Your task to perform on an android device: Go to battery settings Image 0: 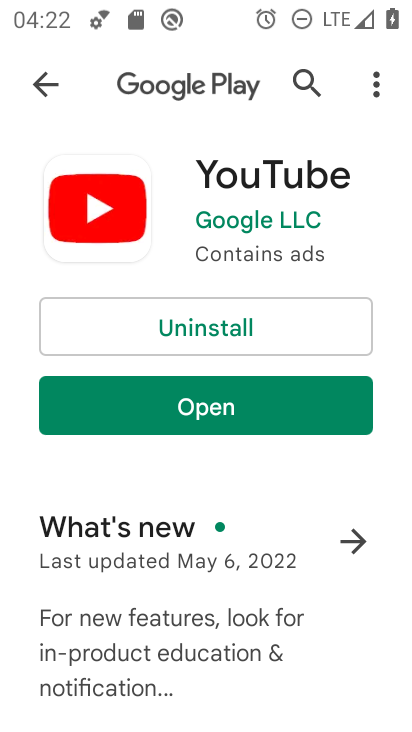
Step 0: press home button
Your task to perform on an android device: Go to battery settings Image 1: 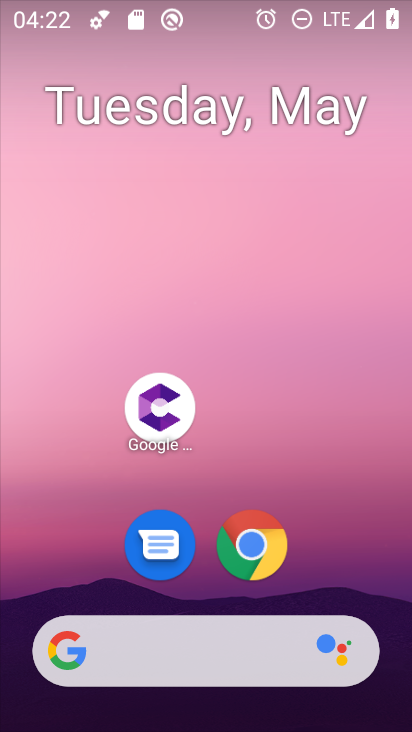
Step 1: drag from (362, 576) to (353, 227)
Your task to perform on an android device: Go to battery settings Image 2: 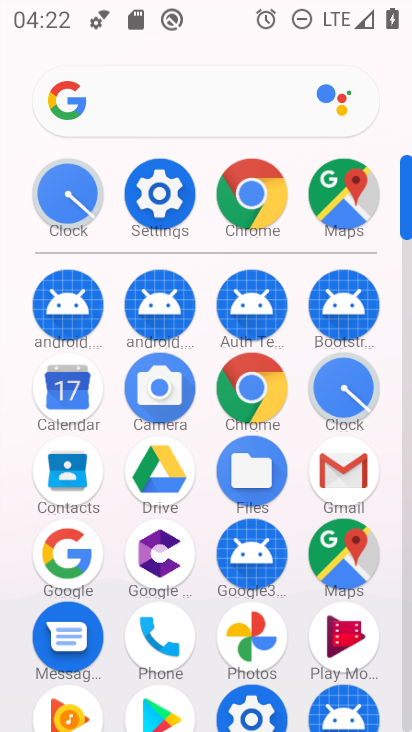
Step 2: click (172, 217)
Your task to perform on an android device: Go to battery settings Image 3: 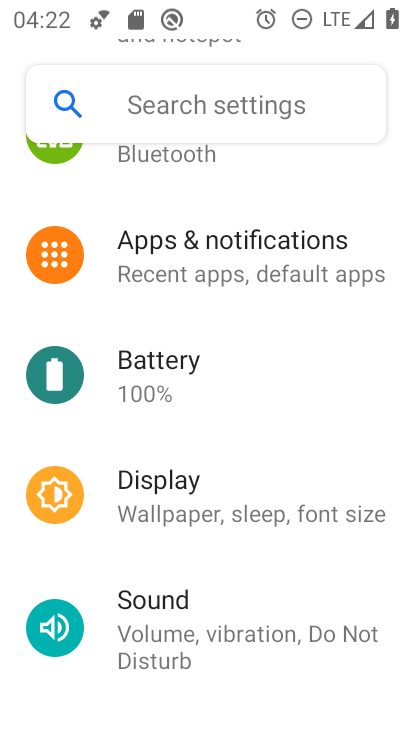
Step 3: drag from (304, 321) to (305, 424)
Your task to perform on an android device: Go to battery settings Image 4: 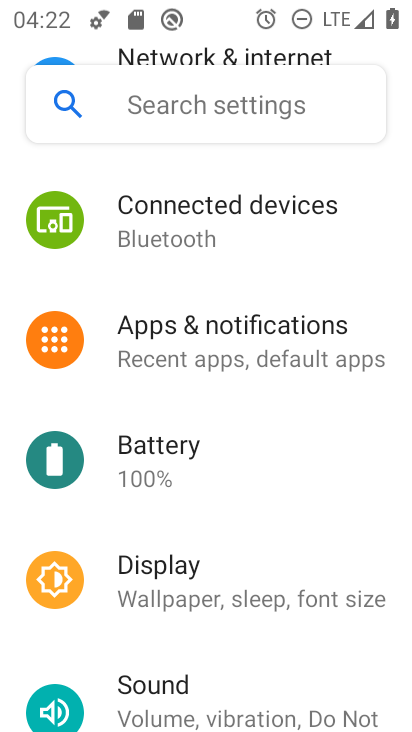
Step 4: drag from (352, 281) to (343, 429)
Your task to perform on an android device: Go to battery settings Image 5: 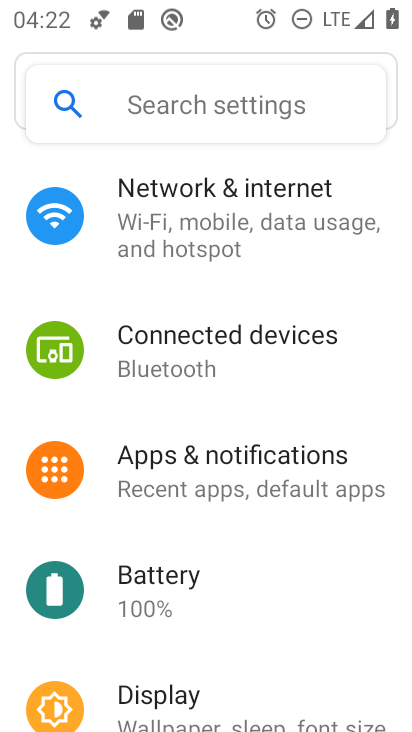
Step 5: drag from (362, 275) to (353, 402)
Your task to perform on an android device: Go to battery settings Image 6: 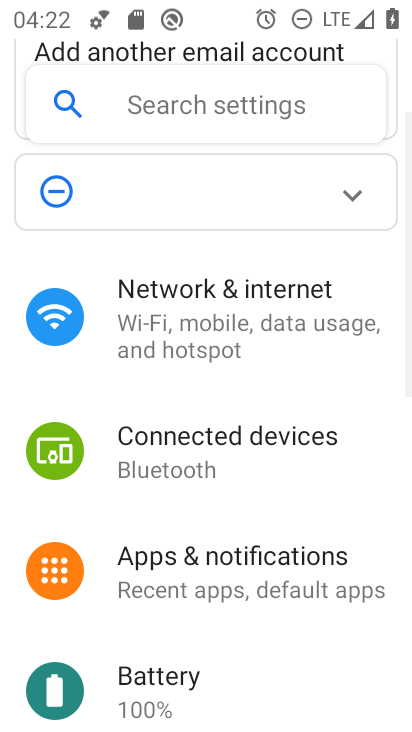
Step 6: drag from (366, 259) to (363, 396)
Your task to perform on an android device: Go to battery settings Image 7: 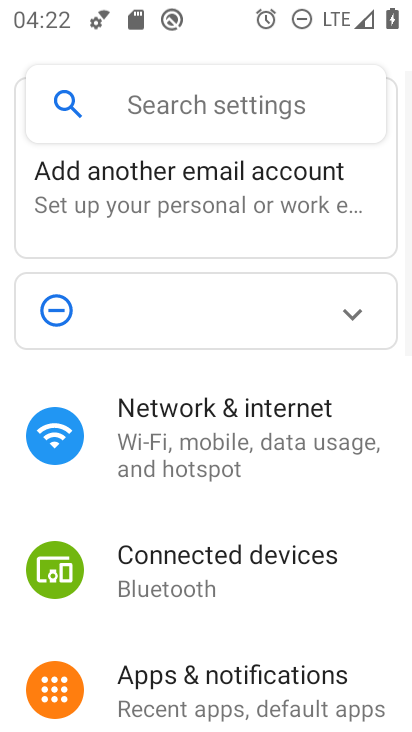
Step 7: drag from (341, 474) to (353, 355)
Your task to perform on an android device: Go to battery settings Image 8: 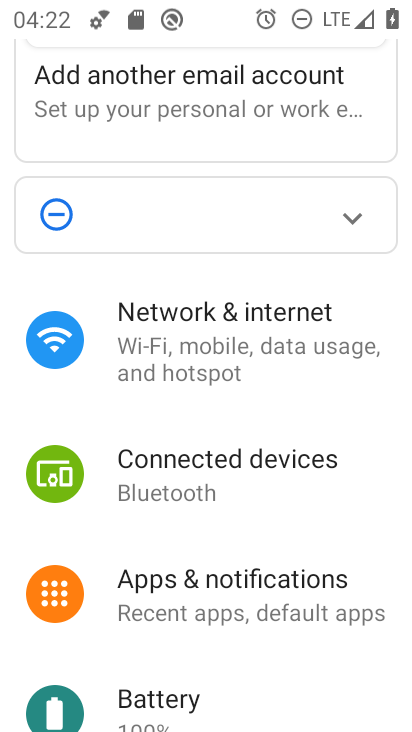
Step 8: drag from (353, 493) to (355, 392)
Your task to perform on an android device: Go to battery settings Image 9: 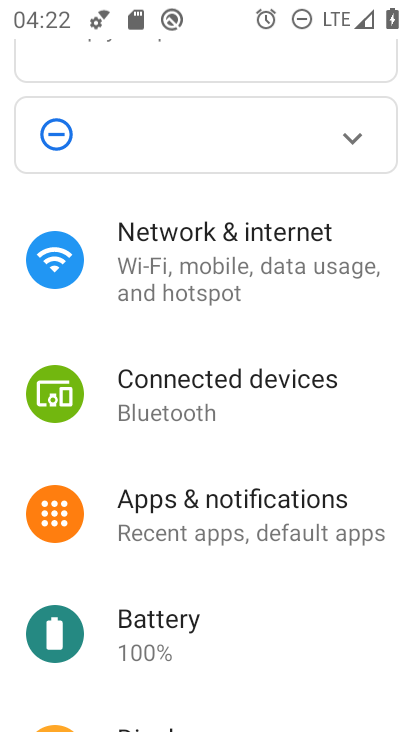
Step 9: drag from (341, 519) to (347, 416)
Your task to perform on an android device: Go to battery settings Image 10: 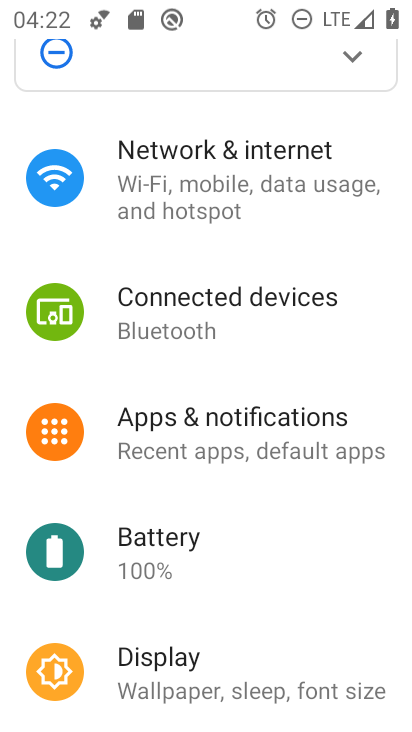
Step 10: drag from (328, 550) to (345, 432)
Your task to perform on an android device: Go to battery settings Image 11: 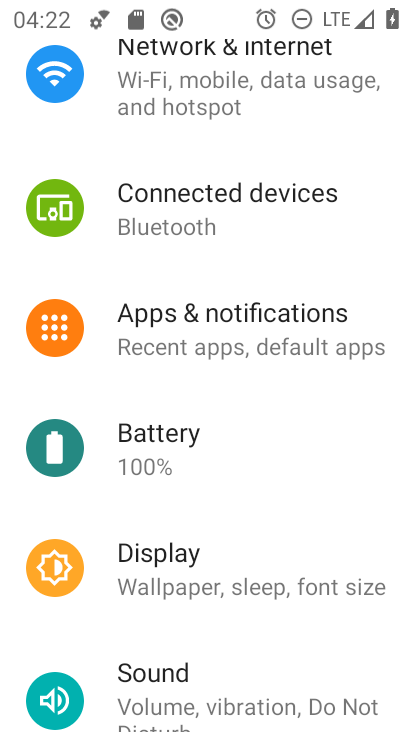
Step 11: click (228, 481)
Your task to perform on an android device: Go to battery settings Image 12: 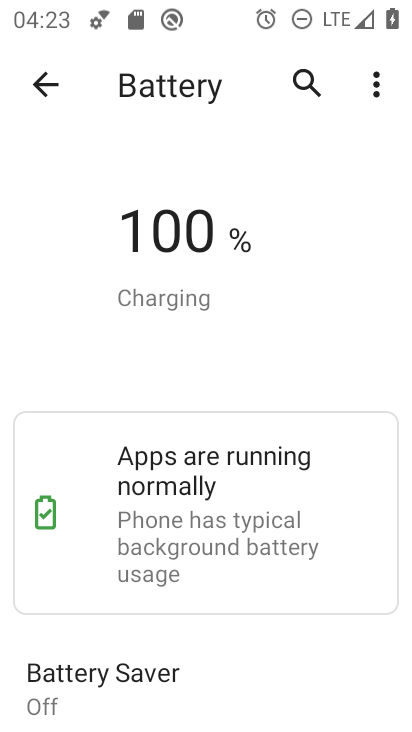
Step 12: task complete